Your task to perform on an android device: all mails in gmail Image 0: 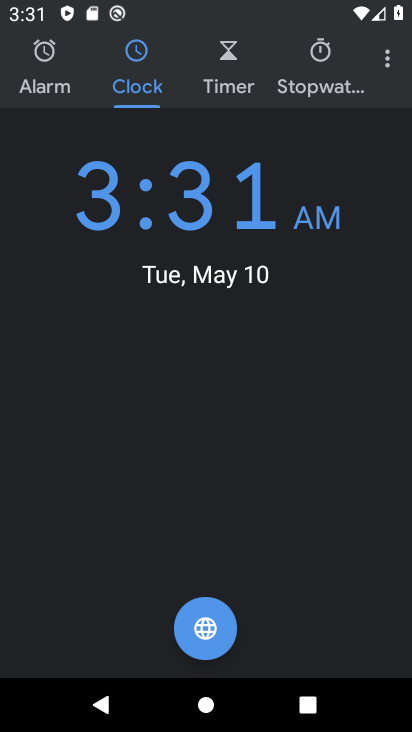
Step 0: press back button
Your task to perform on an android device: all mails in gmail Image 1: 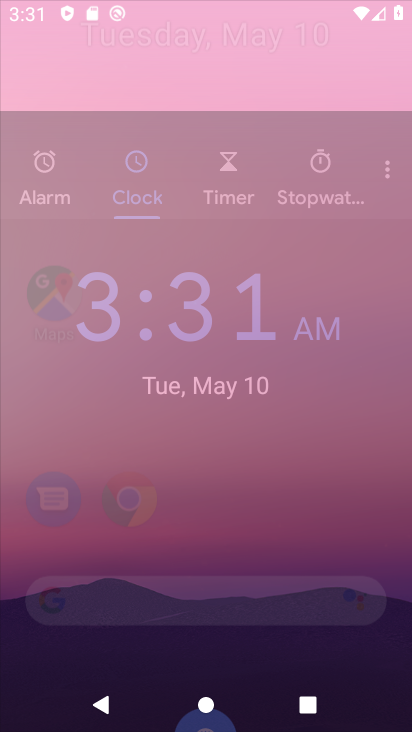
Step 1: press home button
Your task to perform on an android device: all mails in gmail Image 2: 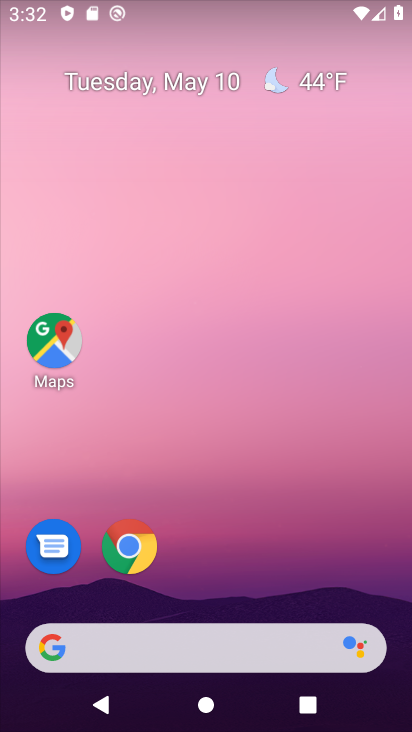
Step 2: drag from (197, 623) to (257, 127)
Your task to perform on an android device: all mails in gmail Image 3: 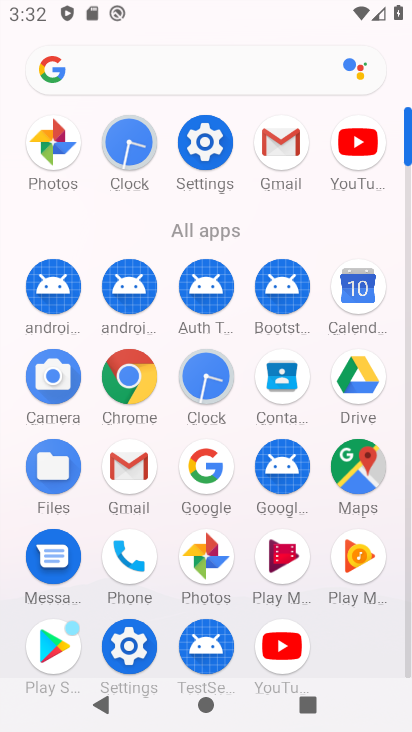
Step 3: click (136, 463)
Your task to perform on an android device: all mails in gmail Image 4: 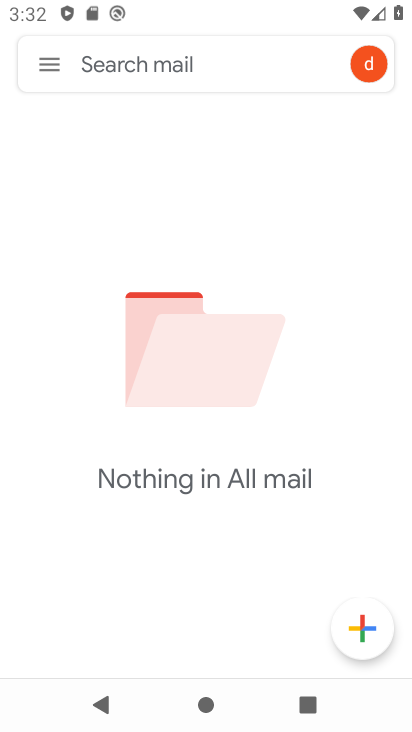
Step 4: click (77, 61)
Your task to perform on an android device: all mails in gmail Image 5: 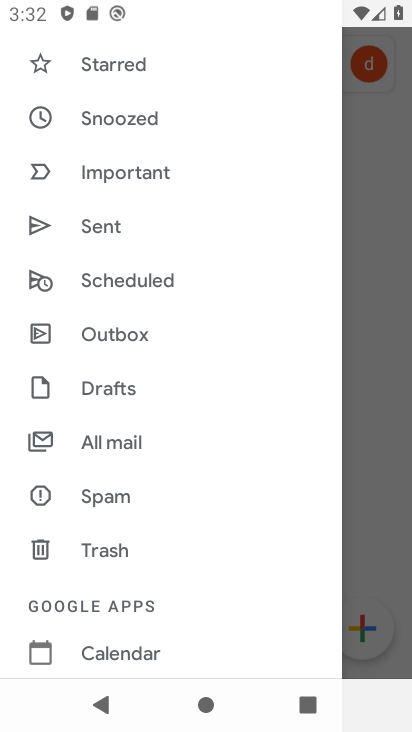
Step 5: click (159, 450)
Your task to perform on an android device: all mails in gmail Image 6: 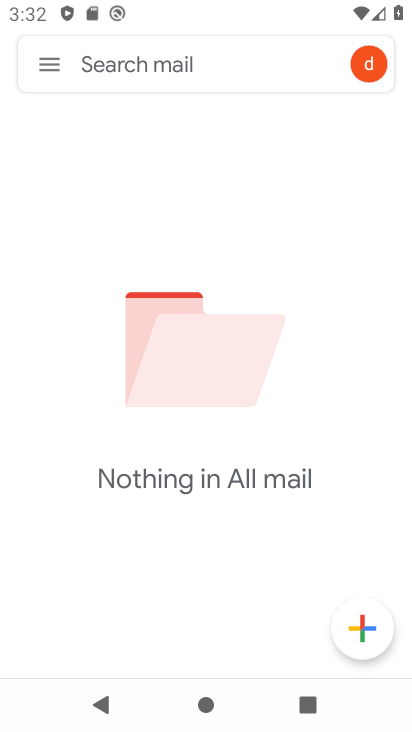
Step 6: task complete